Your task to perform on an android device: Go to Google maps Image 0: 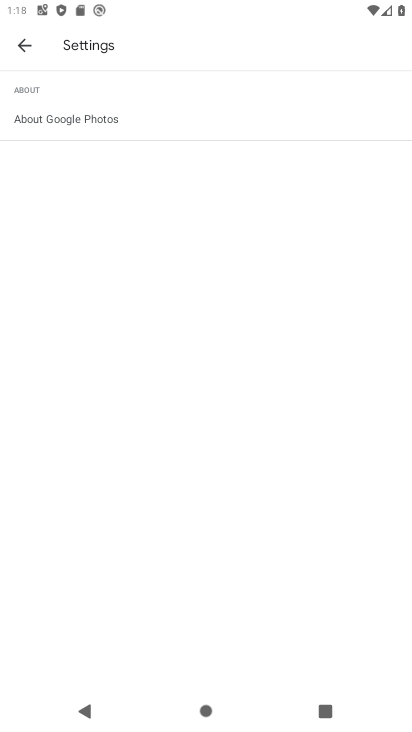
Step 0: press home button
Your task to perform on an android device: Go to Google maps Image 1: 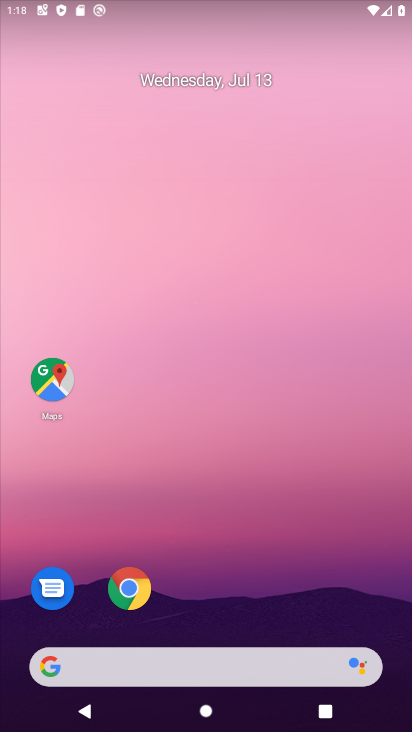
Step 1: click (45, 382)
Your task to perform on an android device: Go to Google maps Image 2: 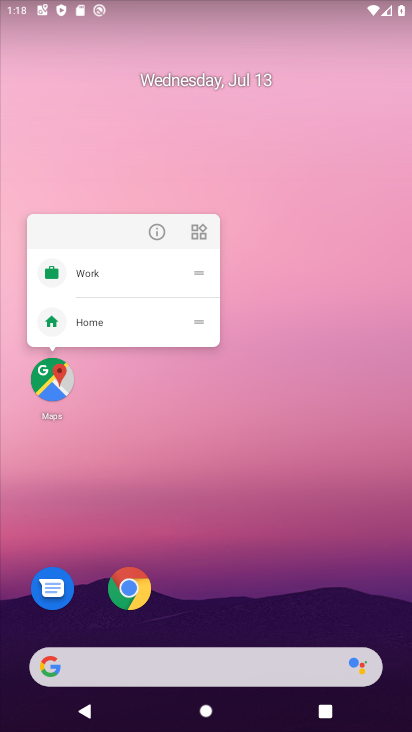
Step 2: click (62, 393)
Your task to perform on an android device: Go to Google maps Image 3: 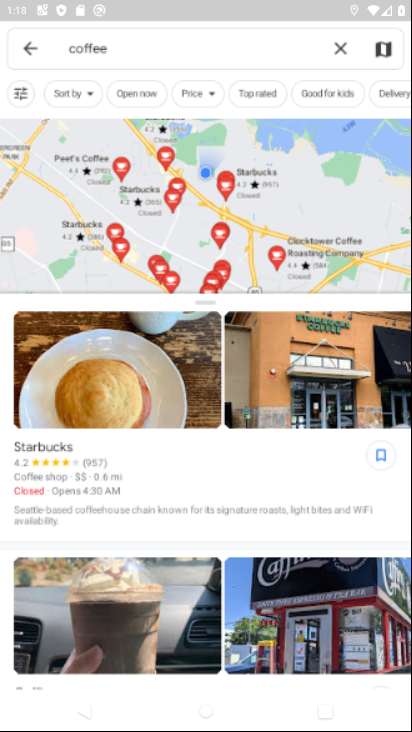
Step 3: click (339, 52)
Your task to perform on an android device: Go to Google maps Image 4: 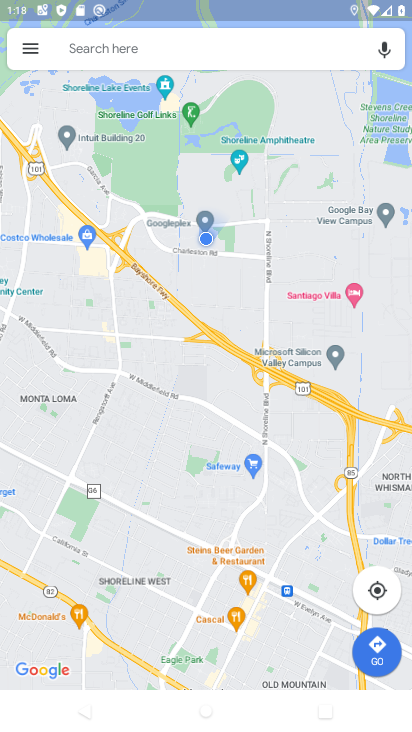
Step 4: task complete